Your task to perform on an android device: add a label to a message in the gmail app Image 0: 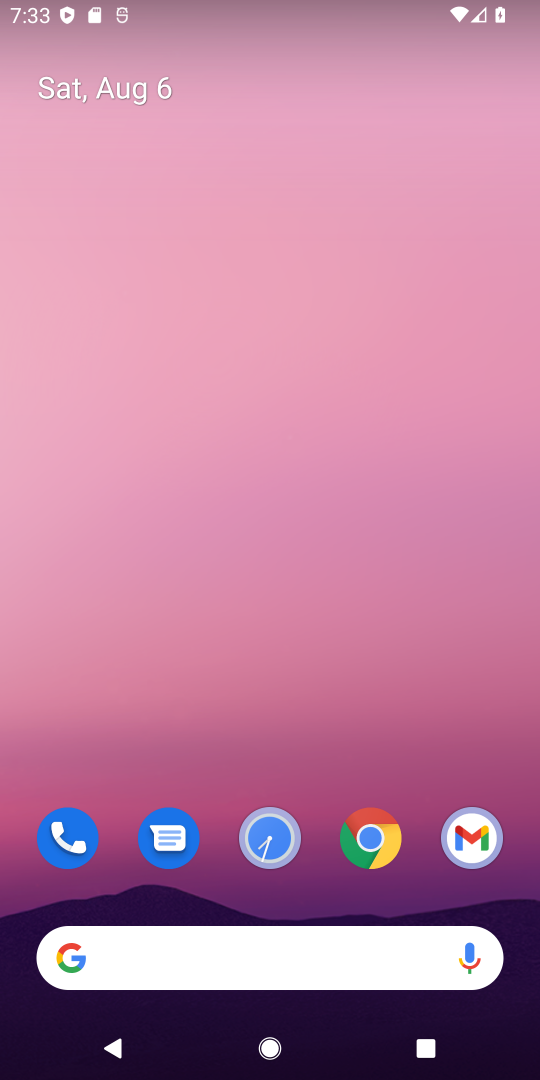
Step 0: click (451, 847)
Your task to perform on an android device: add a label to a message in the gmail app Image 1: 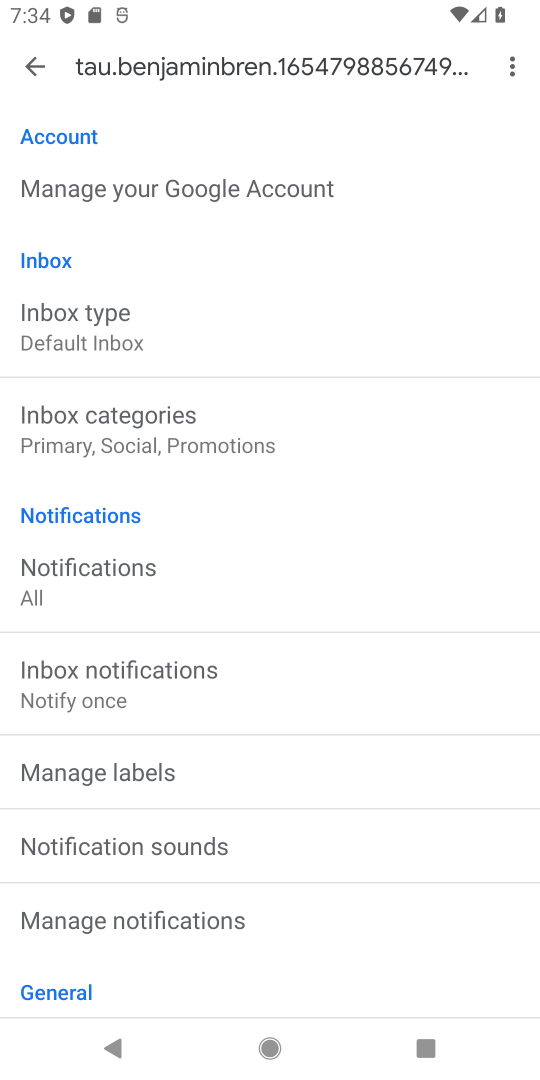
Step 1: click (28, 72)
Your task to perform on an android device: add a label to a message in the gmail app Image 2: 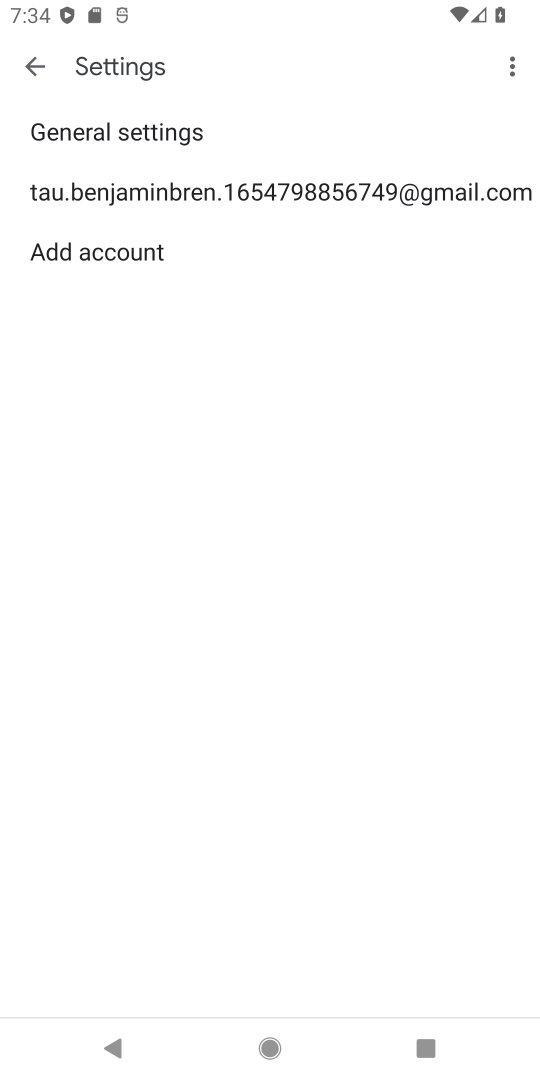
Step 2: click (28, 72)
Your task to perform on an android device: add a label to a message in the gmail app Image 3: 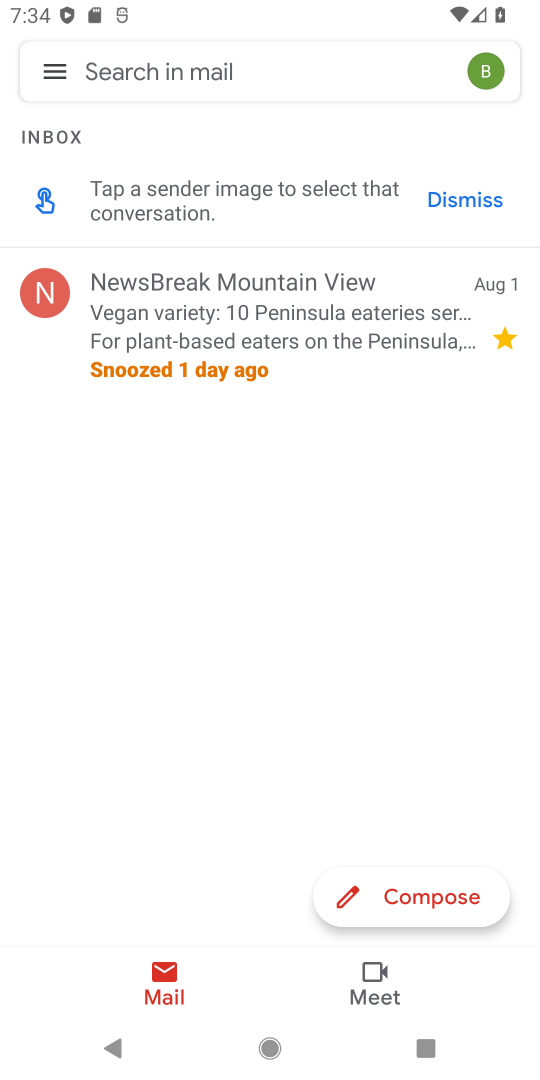
Step 3: click (223, 319)
Your task to perform on an android device: add a label to a message in the gmail app Image 4: 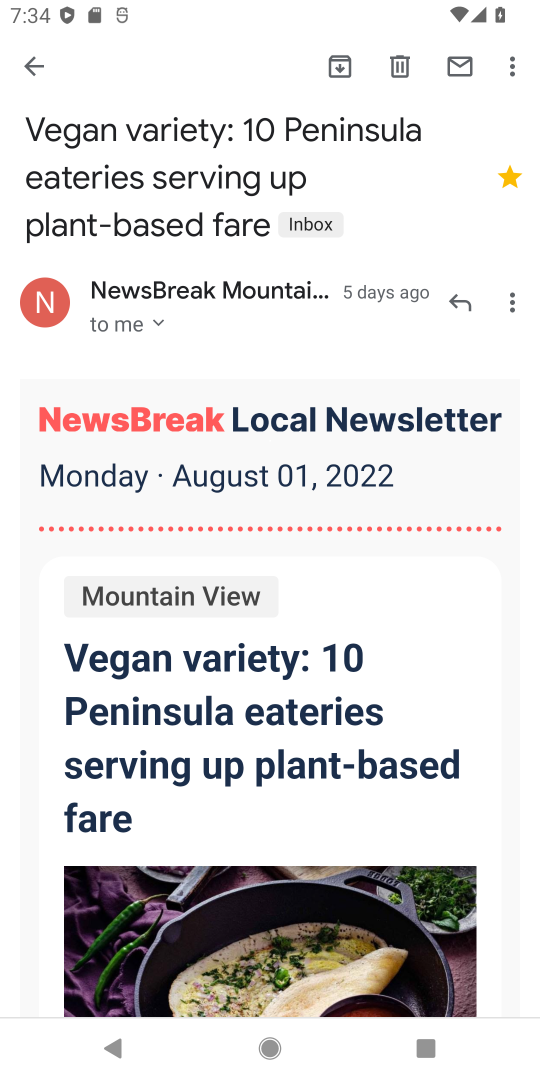
Step 4: click (517, 65)
Your task to perform on an android device: add a label to a message in the gmail app Image 5: 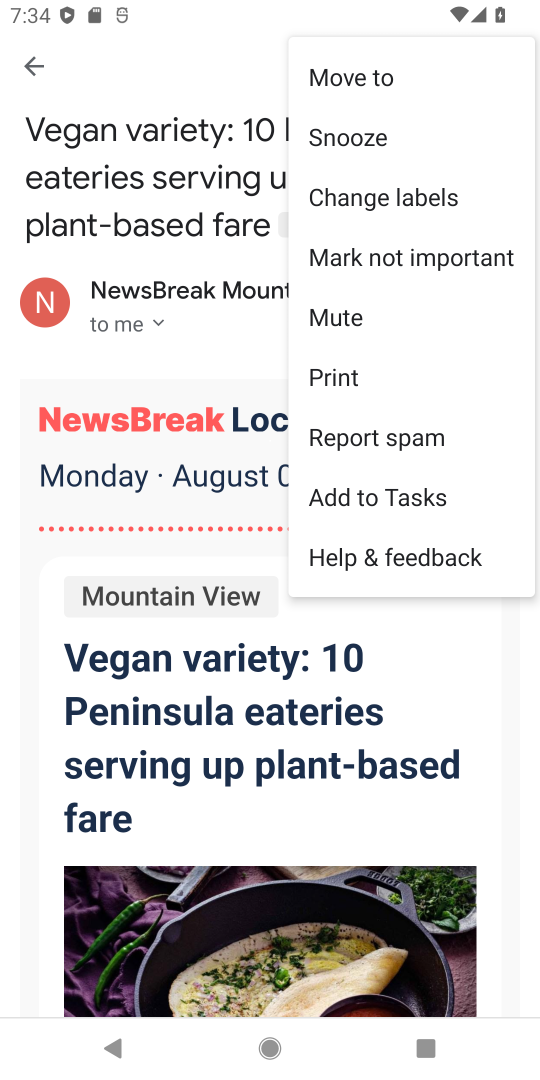
Step 5: click (363, 204)
Your task to perform on an android device: add a label to a message in the gmail app Image 6: 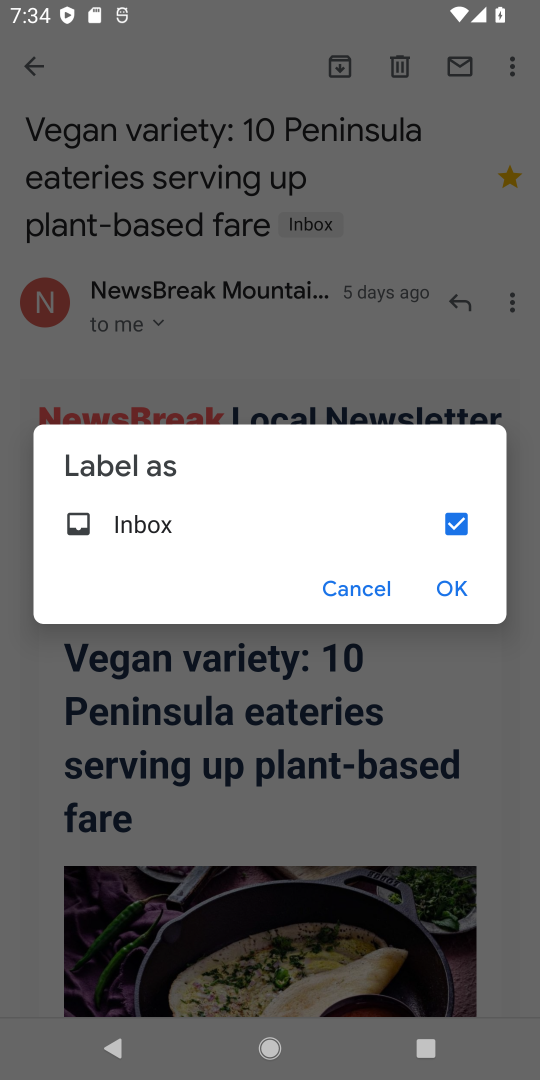
Step 6: click (448, 528)
Your task to perform on an android device: add a label to a message in the gmail app Image 7: 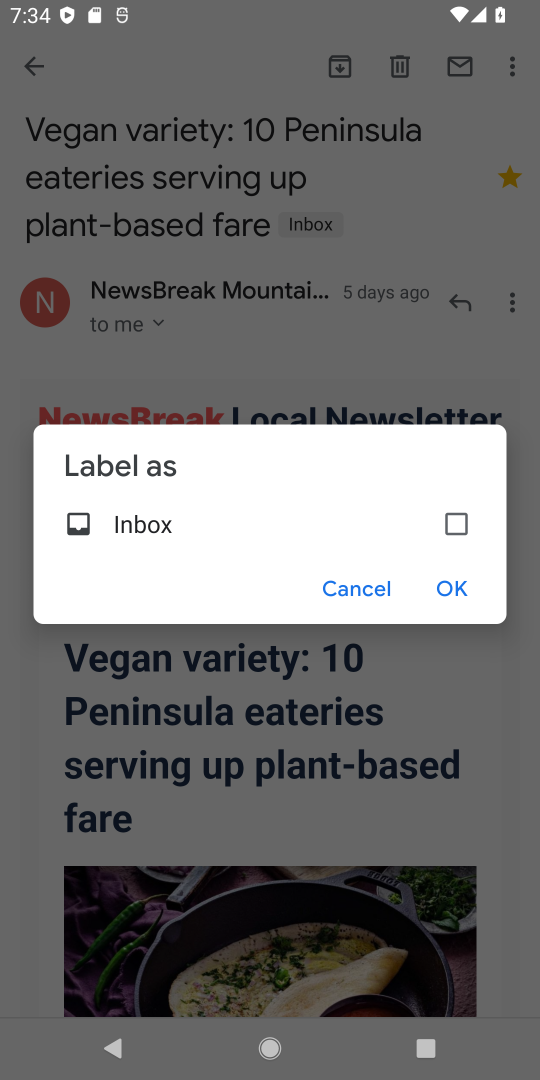
Step 7: click (448, 595)
Your task to perform on an android device: add a label to a message in the gmail app Image 8: 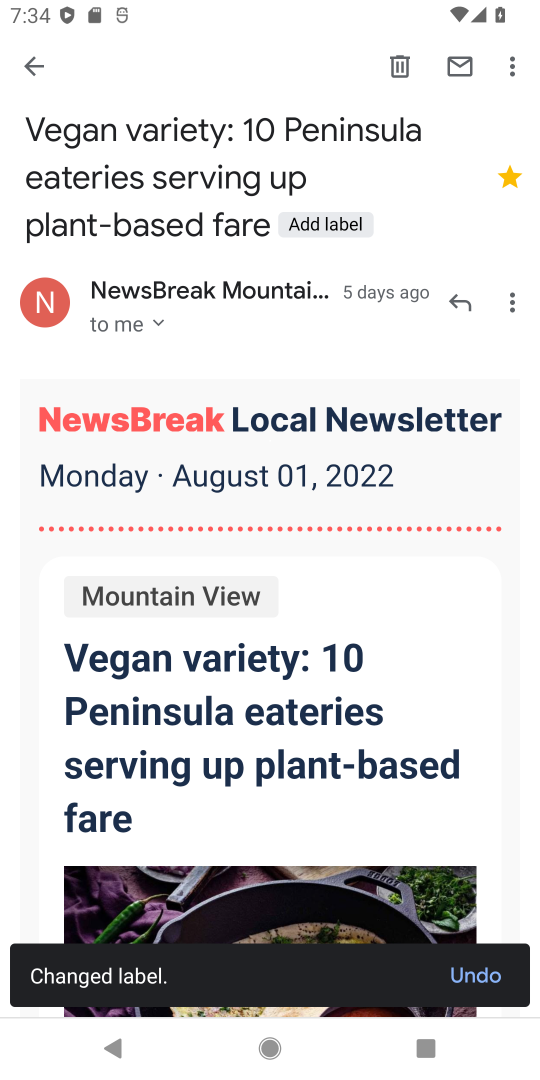
Step 8: task complete